Your task to perform on an android device: turn on sleep mode Image 0: 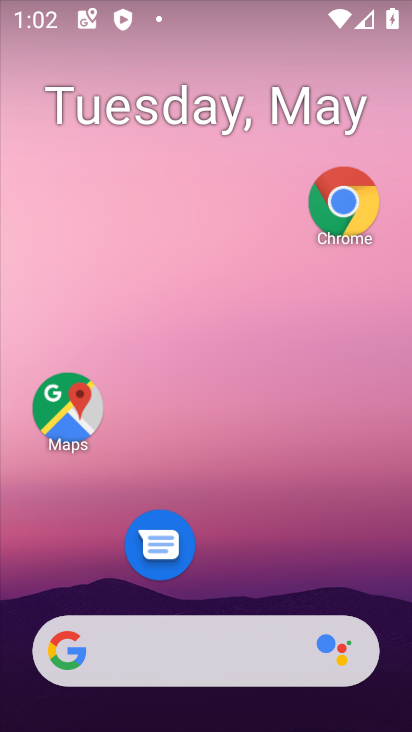
Step 0: drag from (239, 591) to (312, 33)
Your task to perform on an android device: turn on sleep mode Image 1: 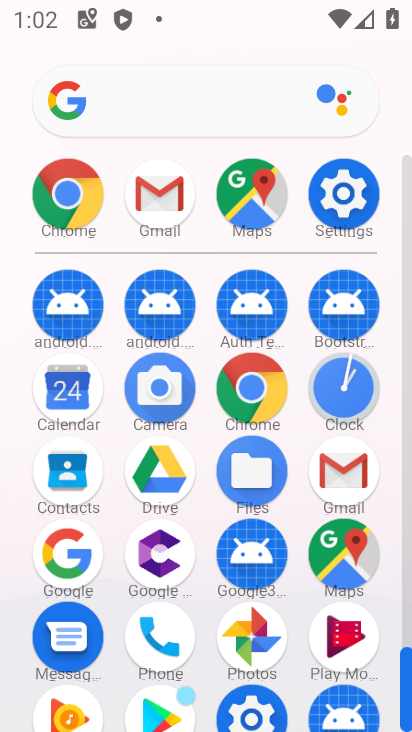
Step 1: click (352, 201)
Your task to perform on an android device: turn on sleep mode Image 2: 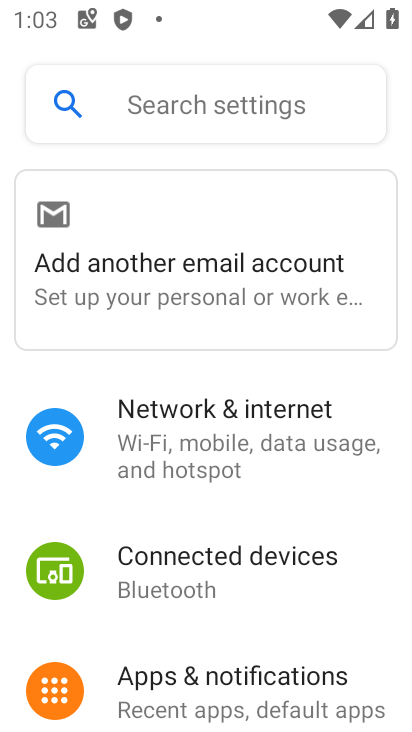
Step 2: task complete